Your task to perform on an android device: change text size in settings app Image 0: 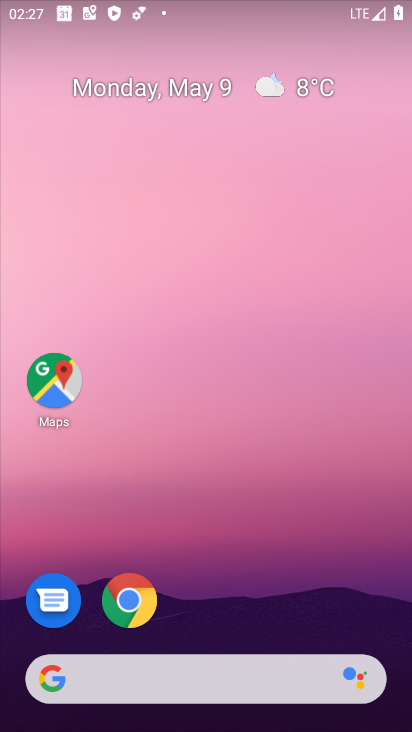
Step 0: drag from (204, 623) to (228, 94)
Your task to perform on an android device: change text size in settings app Image 1: 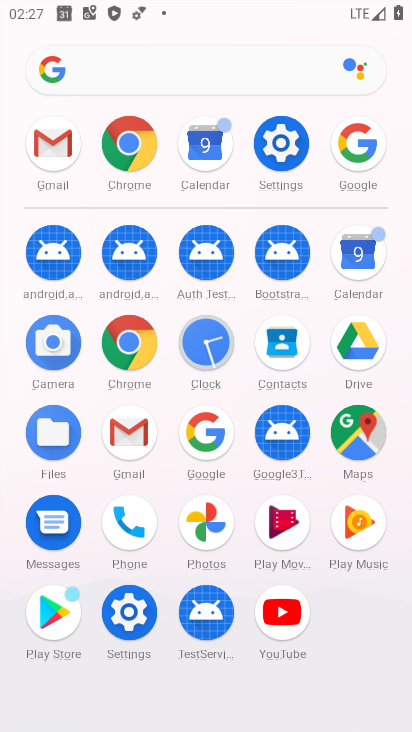
Step 1: click (277, 138)
Your task to perform on an android device: change text size in settings app Image 2: 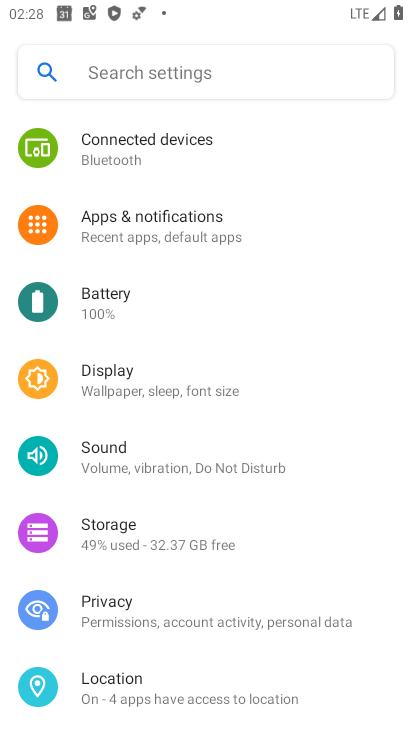
Step 2: click (139, 380)
Your task to perform on an android device: change text size in settings app Image 3: 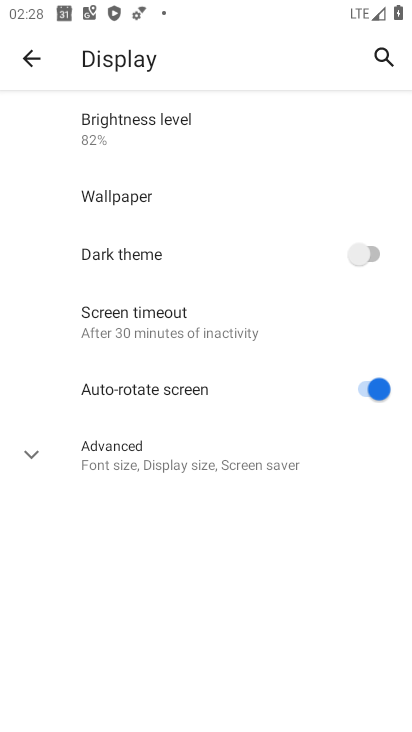
Step 3: click (147, 445)
Your task to perform on an android device: change text size in settings app Image 4: 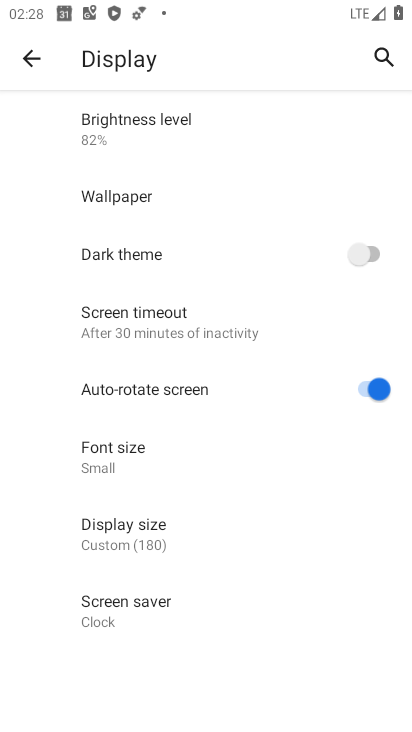
Step 4: click (133, 459)
Your task to perform on an android device: change text size in settings app Image 5: 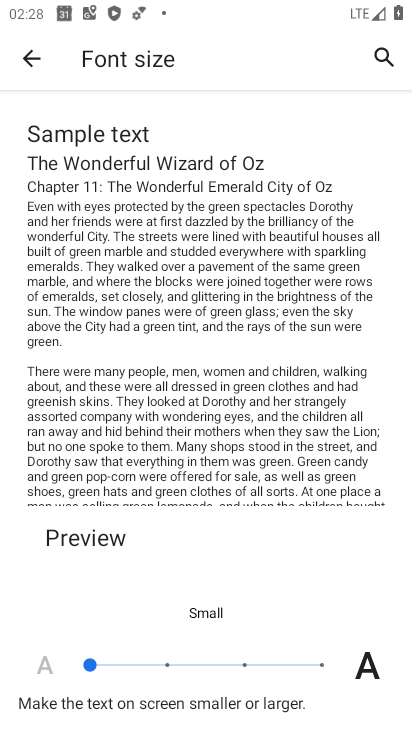
Step 5: click (166, 661)
Your task to perform on an android device: change text size in settings app Image 6: 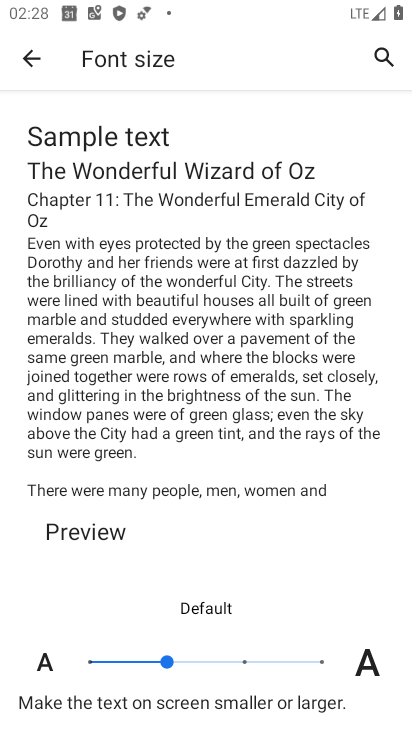
Step 6: task complete